Your task to perform on an android device: What's on my calendar today? Image 0: 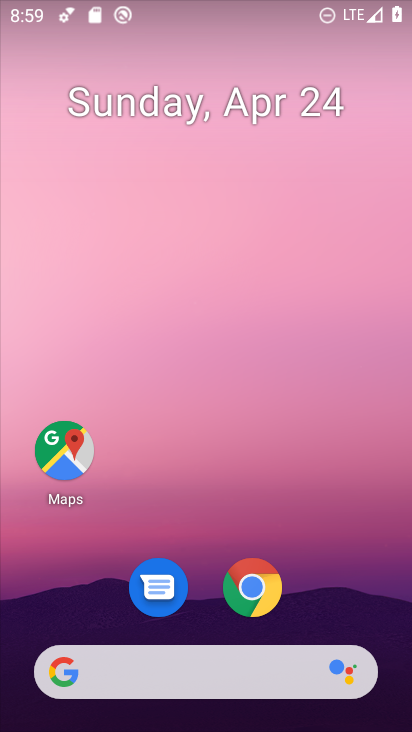
Step 0: drag from (372, 538) to (362, 188)
Your task to perform on an android device: What's on my calendar today? Image 1: 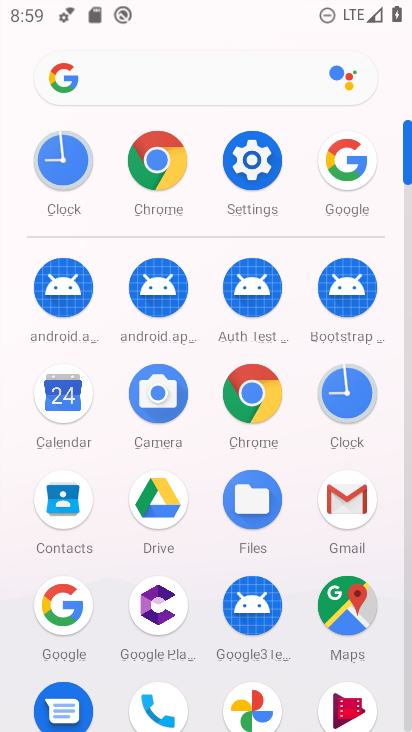
Step 1: click (63, 402)
Your task to perform on an android device: What's on my calendar today? Image 2: 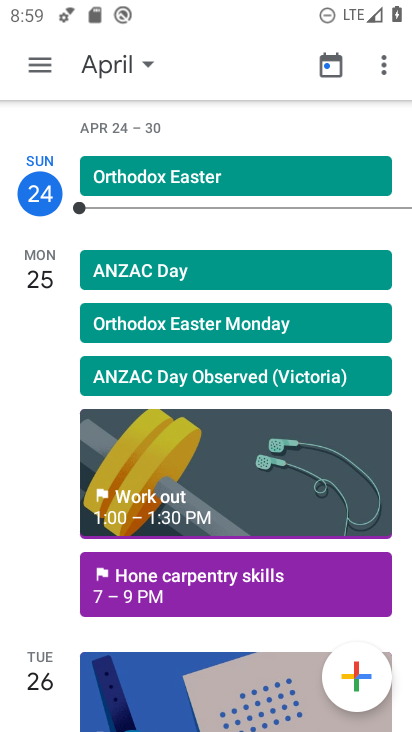
Step 2: task complete